Your task to perform on an android device: find photos in the google photos app Image 0: 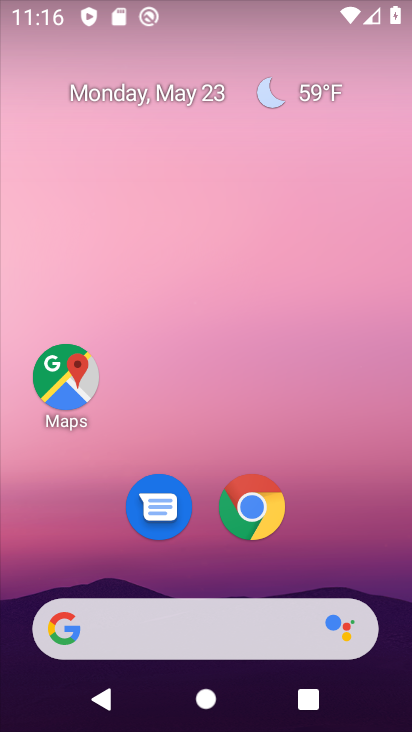
Step 0: drag from (257, 538) to (254, 235)
Your task to perform on an android device: find photos in the google photos app Image 1: 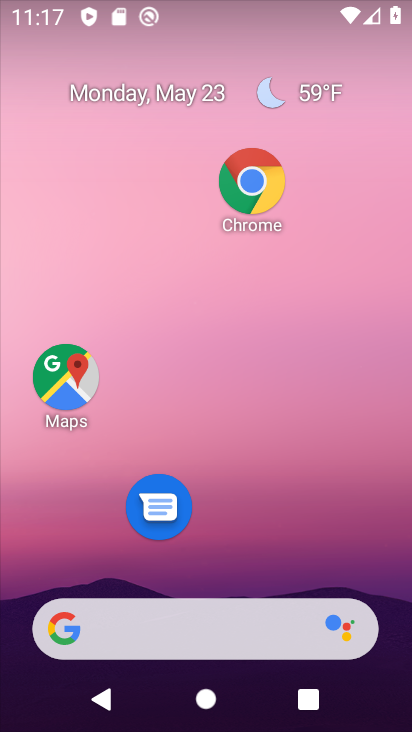
Step 1: drag from (277, 521) to (282, 255)
Your task to perform on an android device: find photos in the google photos app Image 2: 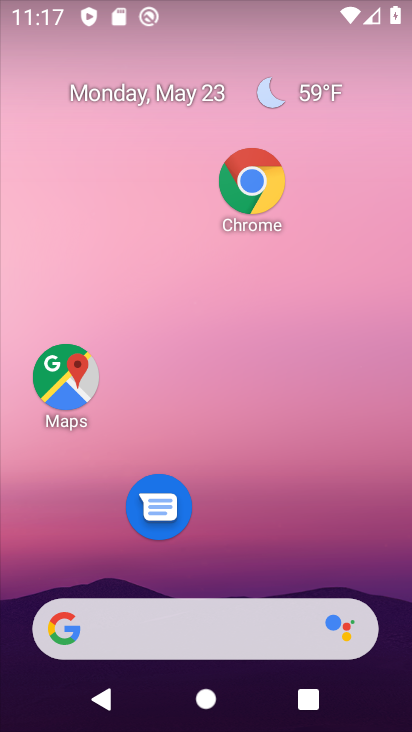
Step 2: drag from (362, 549) to (347, 229)
Your task to perform on an android device: find photos in the google photos app Image 3: 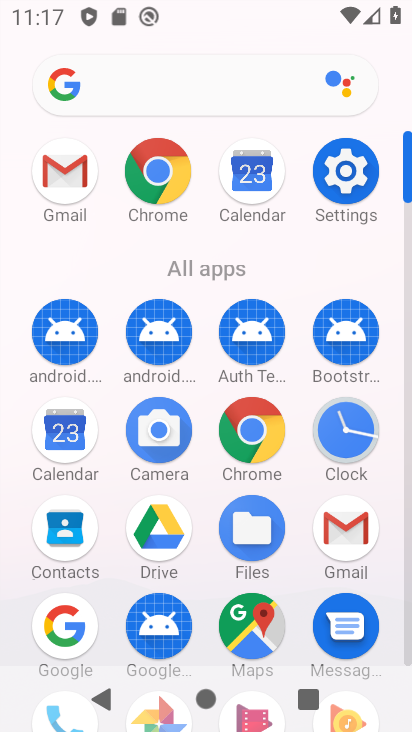
Step 3: drag from (211, 605) to (216, 368)
Your task to perform on an android device: find photos in the google photos app Image 4: 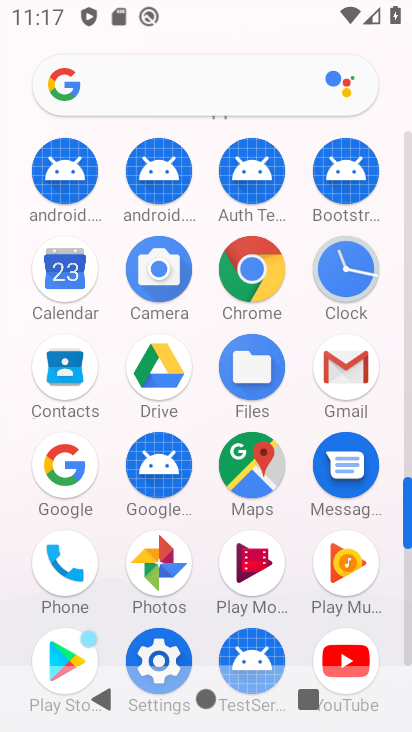
Step 4: click (148, 568)
Your task to perform on an android device: find photos in the google photos app Image 5: 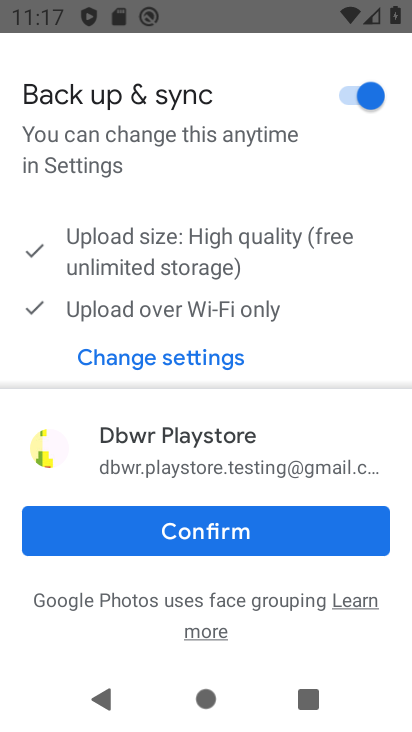
Step 5: click (254, 533)
Your task to perform on an android device: find photos in the google photos app Image 6: 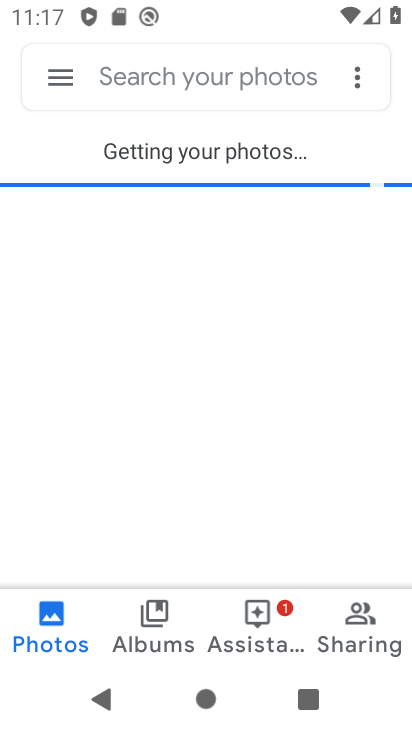
Step 6: click (152, 619)
Your task to perform on an android device: find photos in the google photos app Image 7: 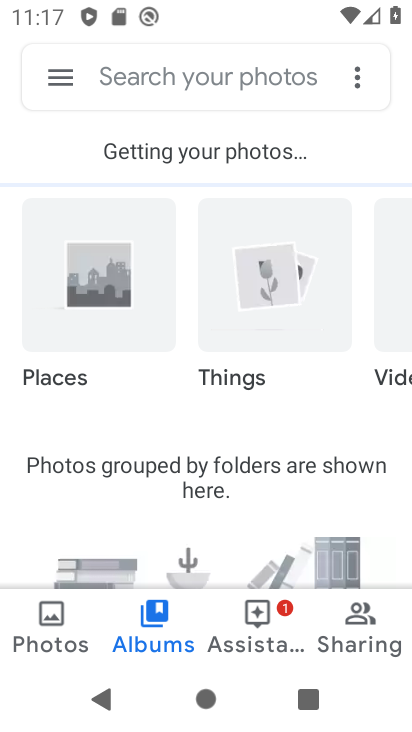
Step 7: click (45, 625)
Your task to perform on an android device: find photos in the google photos app Image 8: 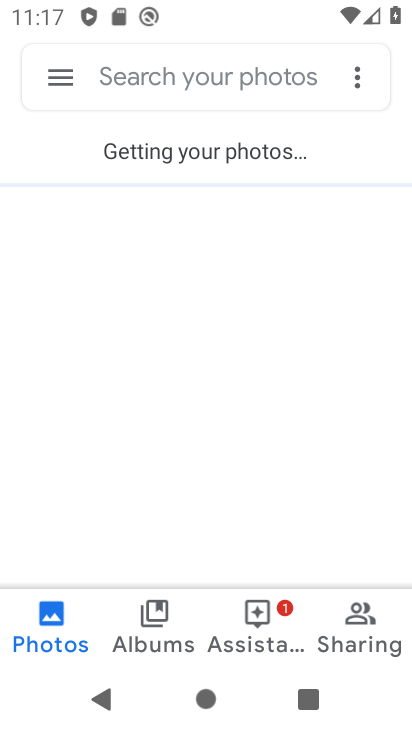
Step 8: task complete